Your task to perform on an android device: Open calendar and show me the third week of next month Image 0: 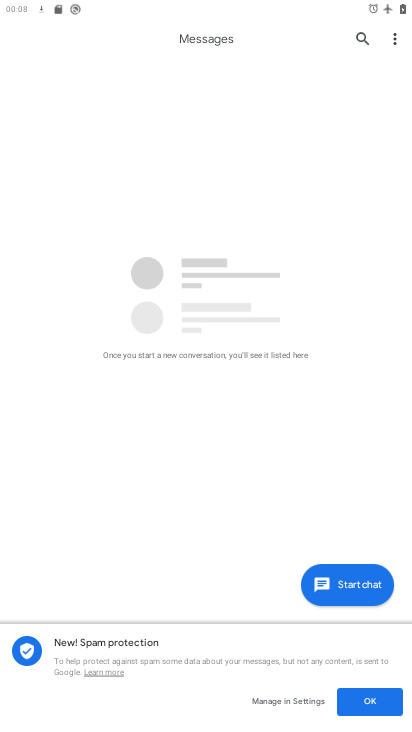
Step 0: press home button
Your task to perform on an android device: Open calendar and show me the third week of next month Image 1: 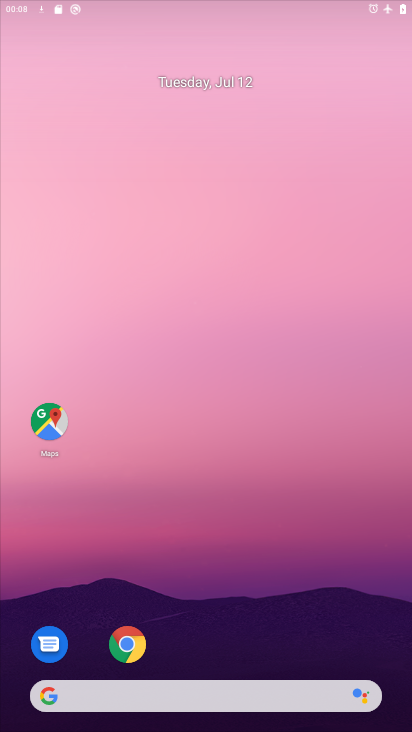
Step 1: drag from (233, 627) to (237, 233)
Your task to perform on an android device: Open calendar and show me the third week of next month Image 2: 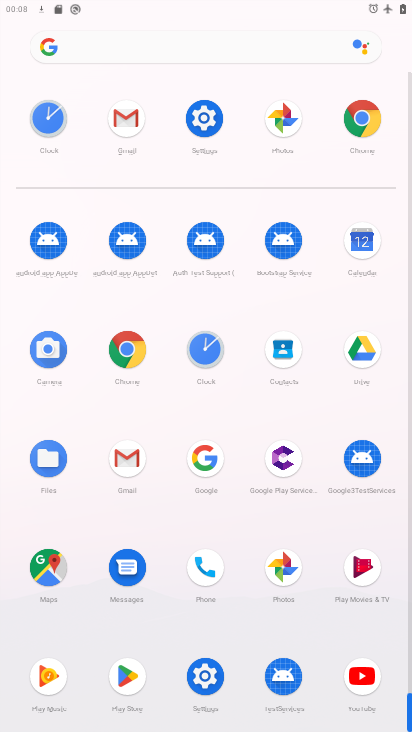
Step 2: click (379, 239)
Your task to perform on an android device: Open calendar and show me the third week of next month Image 3: 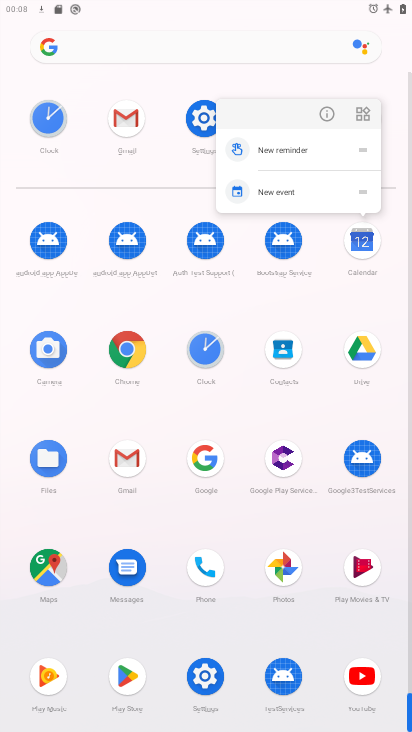
Step 3: click (359, 241)
Your task to perform on an android device: Open calendar and show me the third week of next month Image 4: 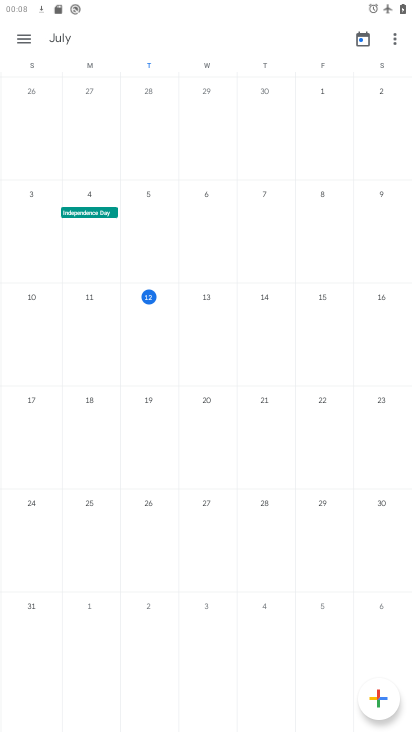
Step 4: task complete